Your task to perform on an android device: choose inbox layout in the gmail app Image 0: 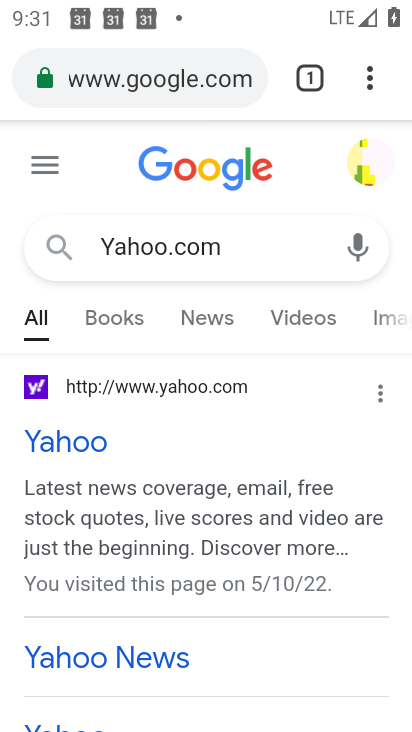
Step 0: press back button
Your task to perform on an android device: choose inbox layout in the gmail app Image 1: 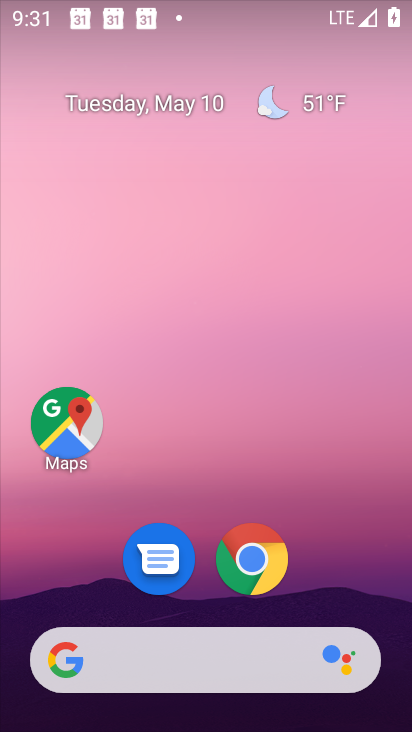
Step 1: drag from (332, 541) to (269, 146)
Your task to perform on an android device: choose inbox layout in the gmail app Image 2: 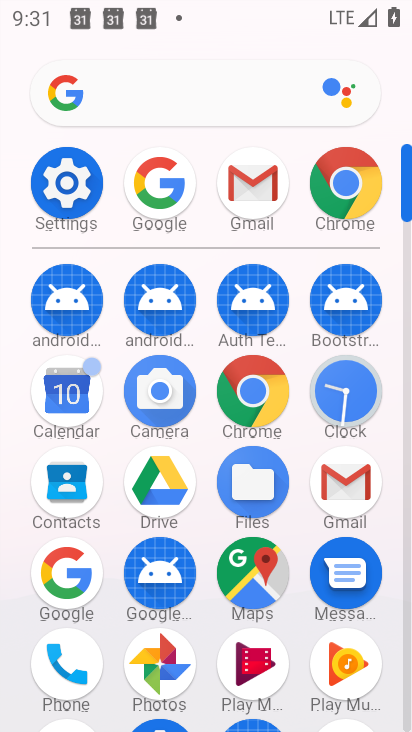
Step 2: click (251, 187)
Your task to perform on an android device: choose inbox layout in the gmail app Image 3: 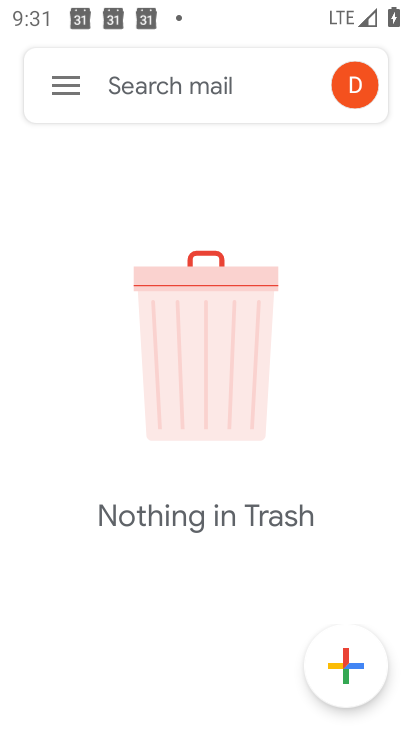
Step 3: click (64, 86)
Your task to perform on an android device: choose inbox layout in the gmail app Image 4: 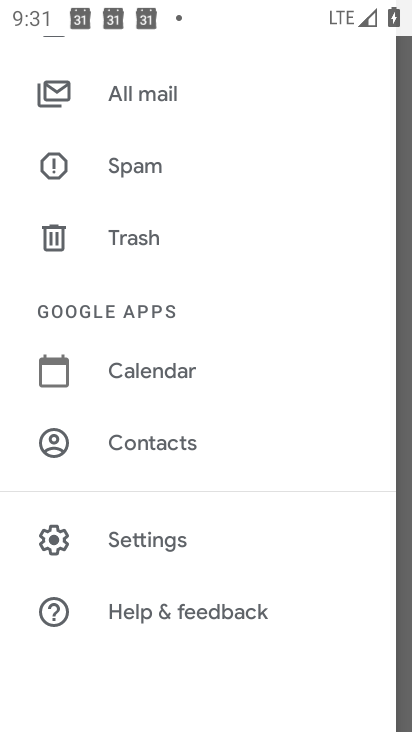
Step 4: click (143, 544)
Your task to perform on an android device: choose inbox layout in the gmail app Image 5: 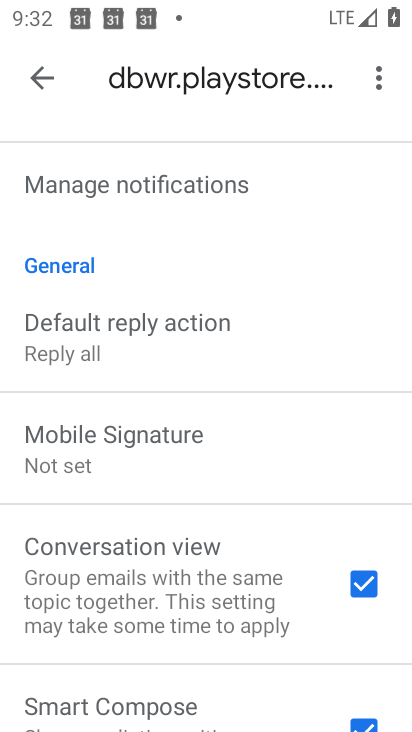
Step 5: drag from (218, 265) to (219, 417)
Your task to perform on an android device: choose inbox layout in the gmail app Image 6: 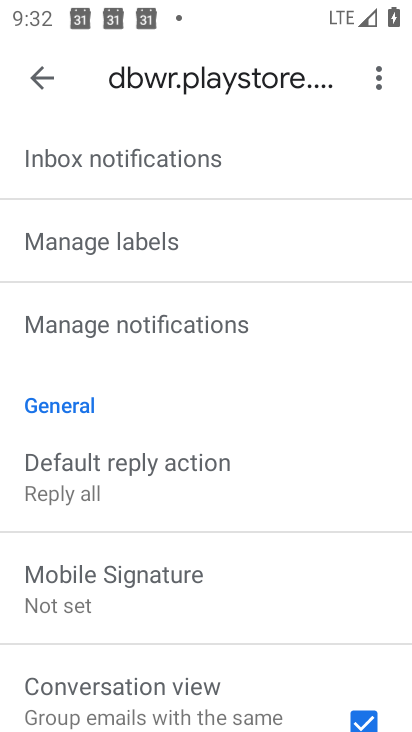
Step 6: drag from (206, 242) to (189, 423)
Your task to perform on an android device: choose inbox layout in the gmail app Image 7: 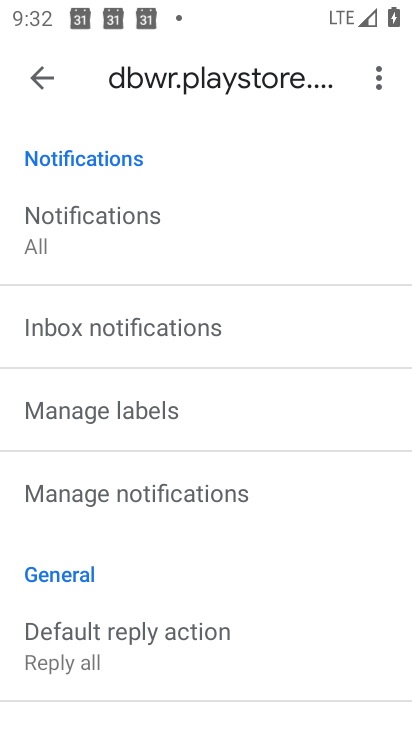
Step 7: drag from (155, 251) to (156, 458)
Your task to perform on an android device: choose inbox layout in the gmail app Image 8: 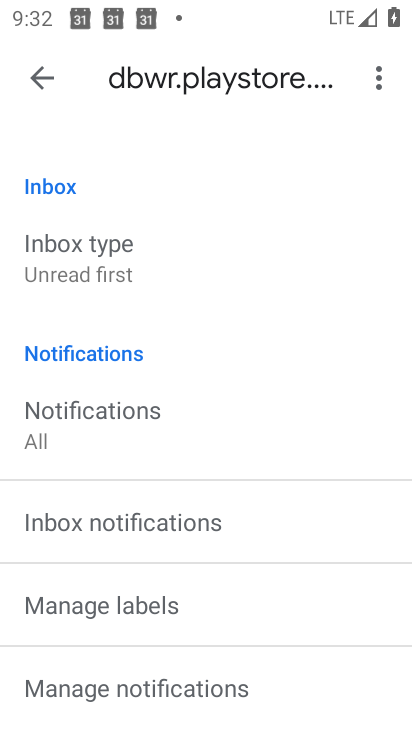
Step 8: click (113, 264)
Your task to perform on an android device: choose inbox layout in the gmail app Image 9: 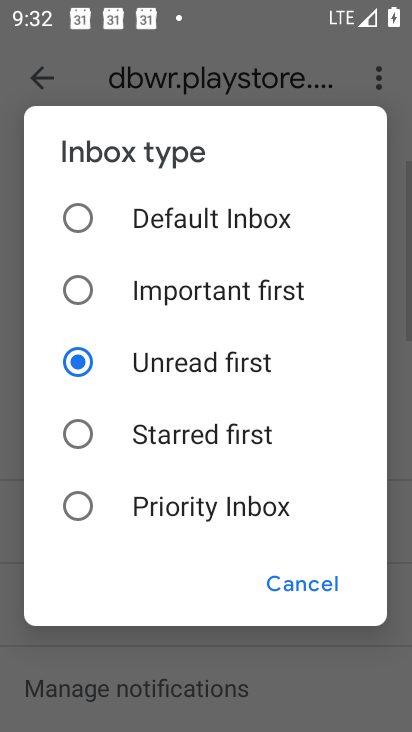
Step 9: click (69, 217)
Your task to perform on an android device: choose inbox layout in the gmail app Image 10: 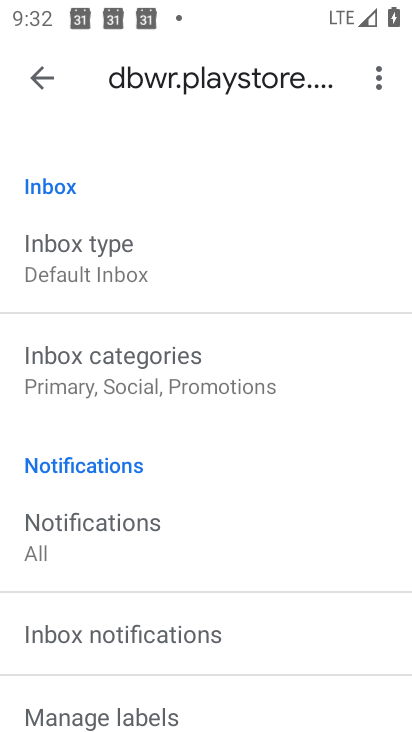
Step 10: task complete